Your task to perform on an android device: turn on location history Image 0: 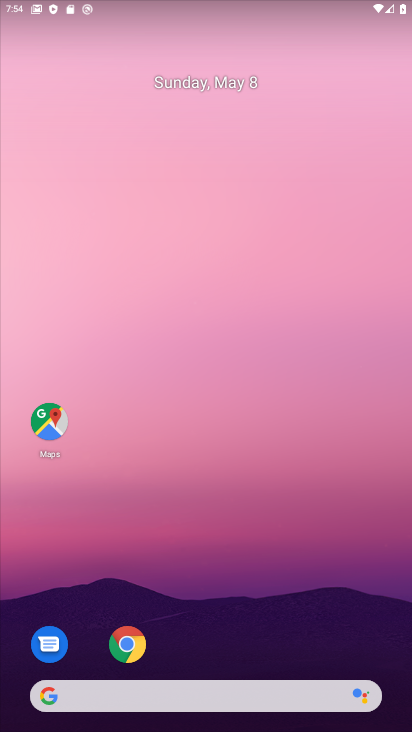
Step 0: drag from (217, 671) to (273, 99)
Your task to perform on an android device: turn on location history Image 1: 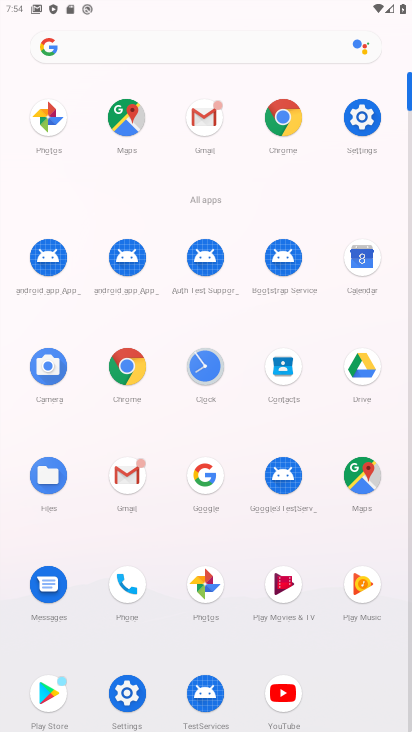
Step 1: click (367, 118)
Your task to perform on an android device: turn on location history Image 2: 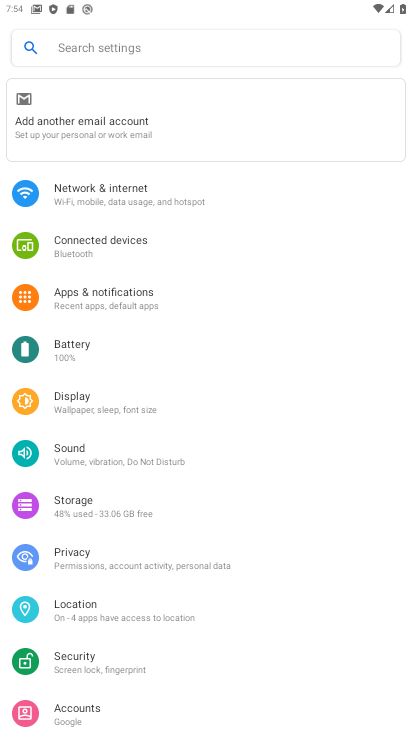
Step 2: click (108, 610)
Your task to perform on an android device: turn on location history Image 3: 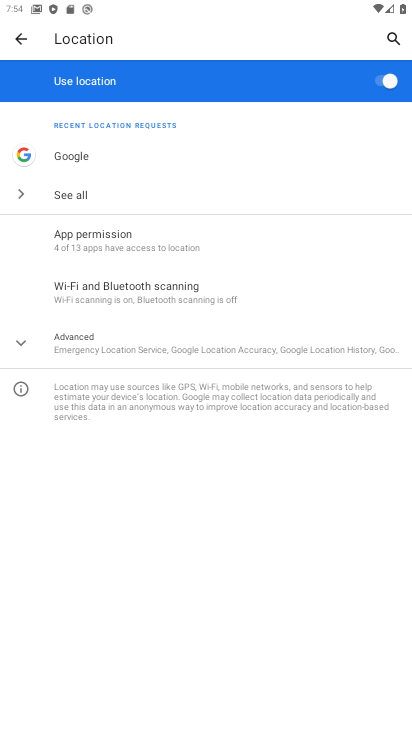
Step 3: click (100, 339)
Your task to perform on an android device: turn on location history Image 4: 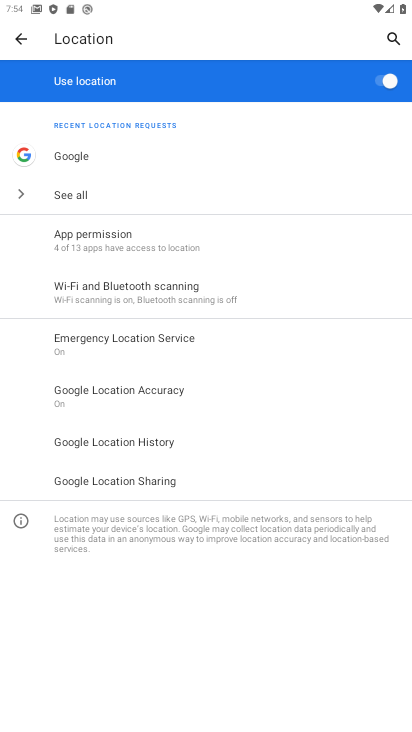
Step 4: click (150, 448)
Your task to perform on an android device: turn on location history Image 5: 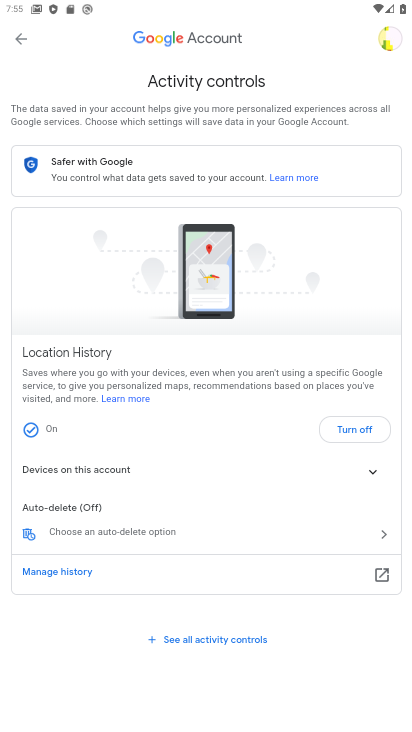
Step 5: task complete